Your task to perform on an android device: uninstall "Cash App" Image 0: 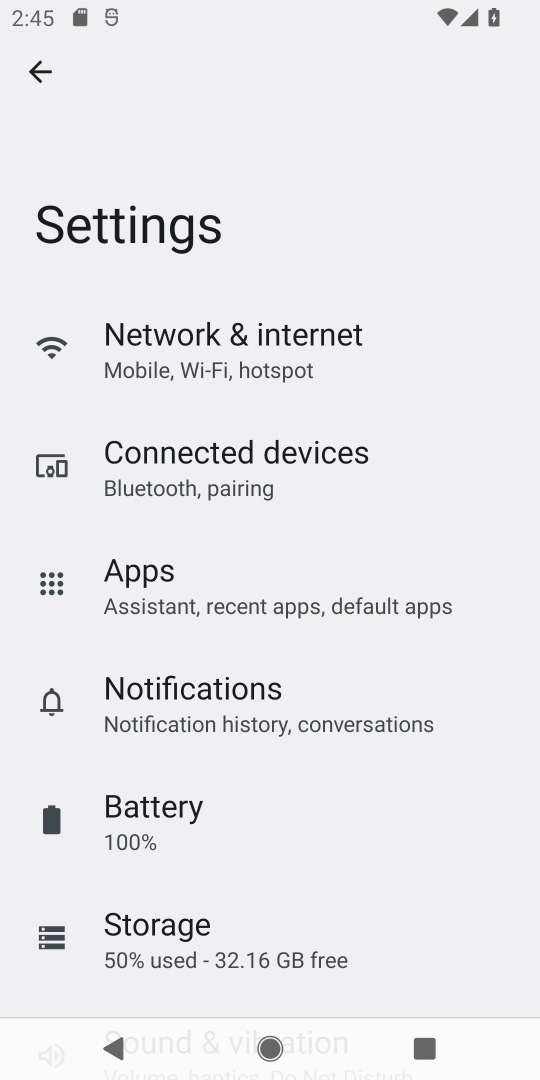
Step 0: press home button
Your task to perform on an android device: uninstall "Cash App" Image 1: 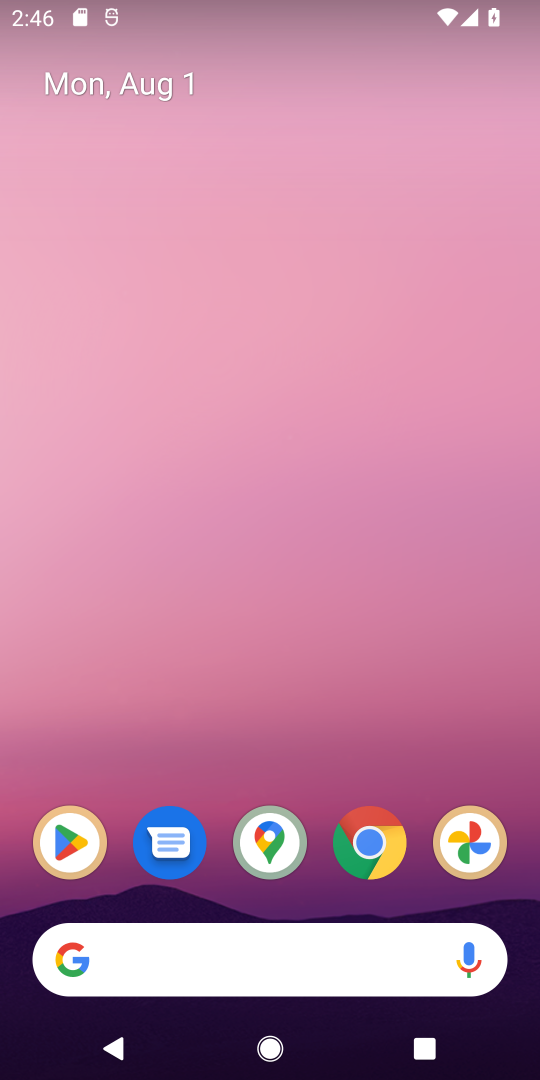
Step 1: click (64, 855)
Your task to perform on an android device: uninstall "Cash App" Image 2: 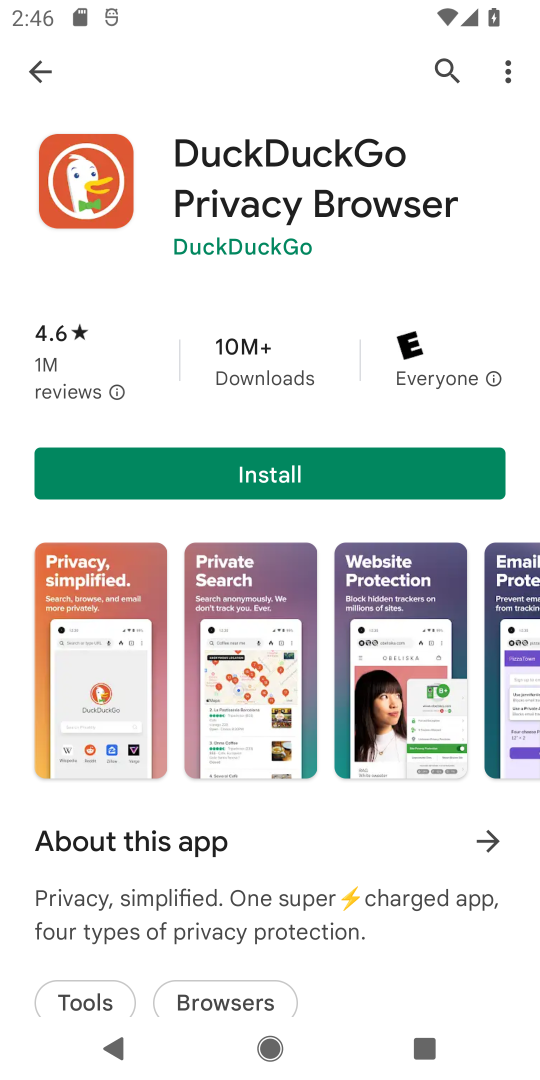
Step 2: click (40, 73)
Your task to perform on an android device: uninstall "Cash App" Image 3: 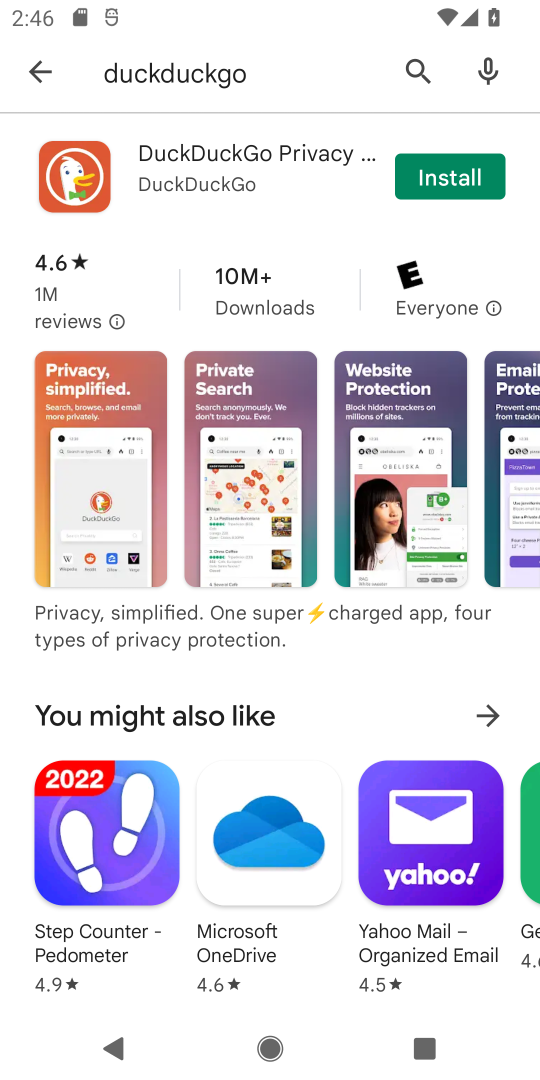
Step 3: click (189, 74)
Your task to perform on an android device: uninstall "Cash App" Image 4: 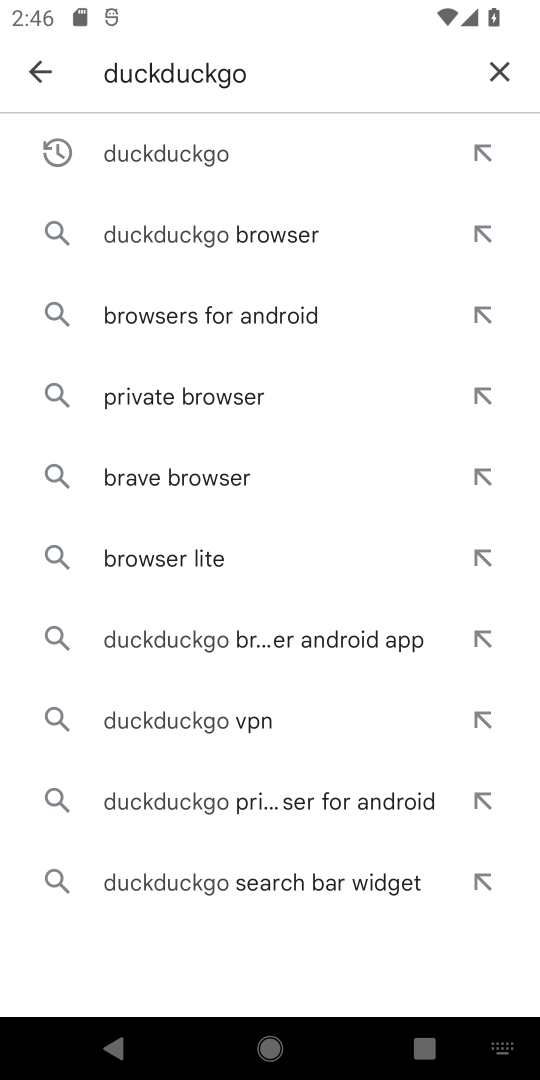
Step 4: click (492, 61)
Your task to perform on an android device: uninstall "Cash App" Image 5: 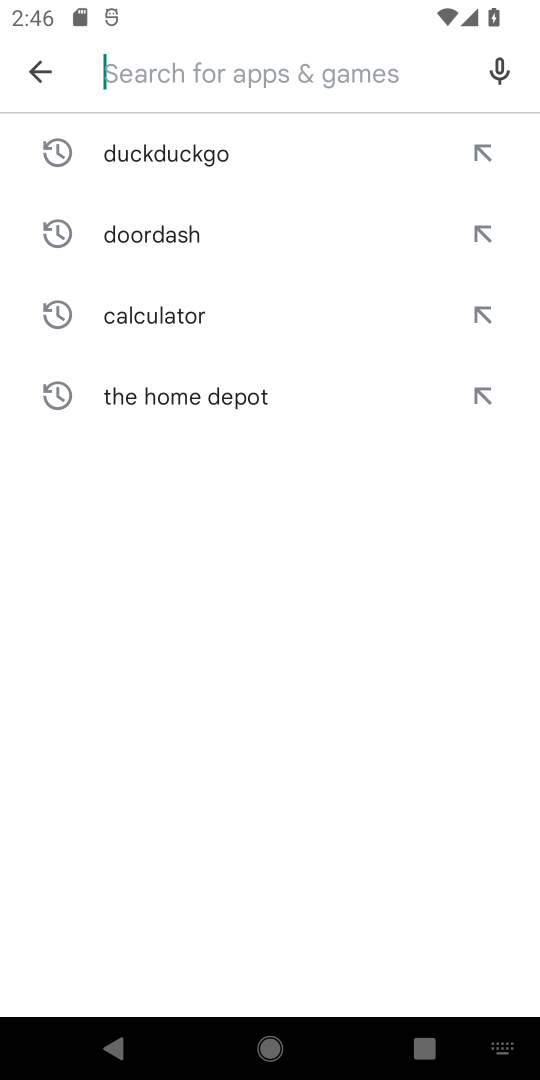
Step 5: type "CashApp"
Your task to perform on an android device: uninstall "Cash App" Image 6: 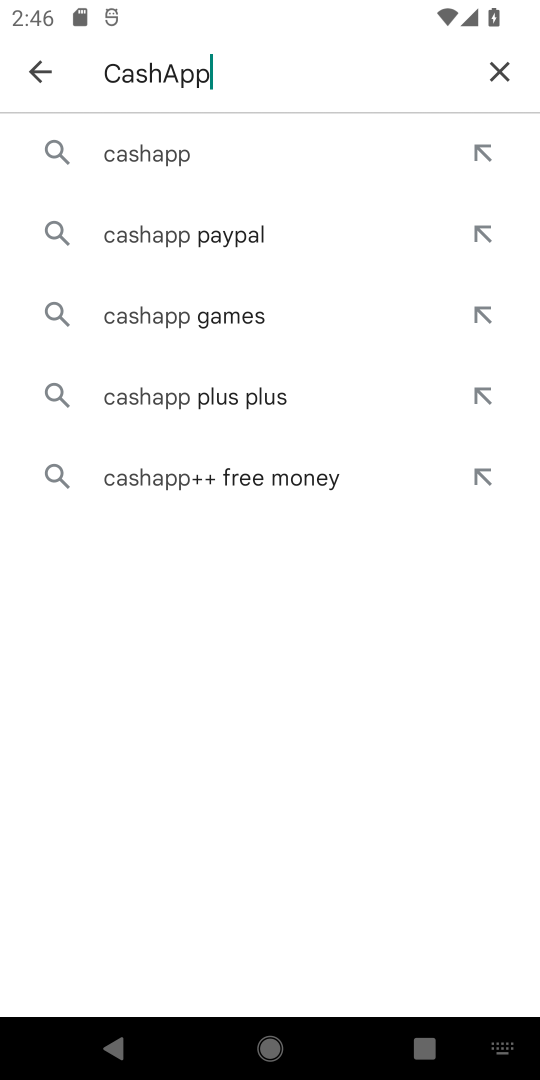
Step 6: click (196, 163)
Your task to perform on an android device: uninstall "Cash App" Image 7: 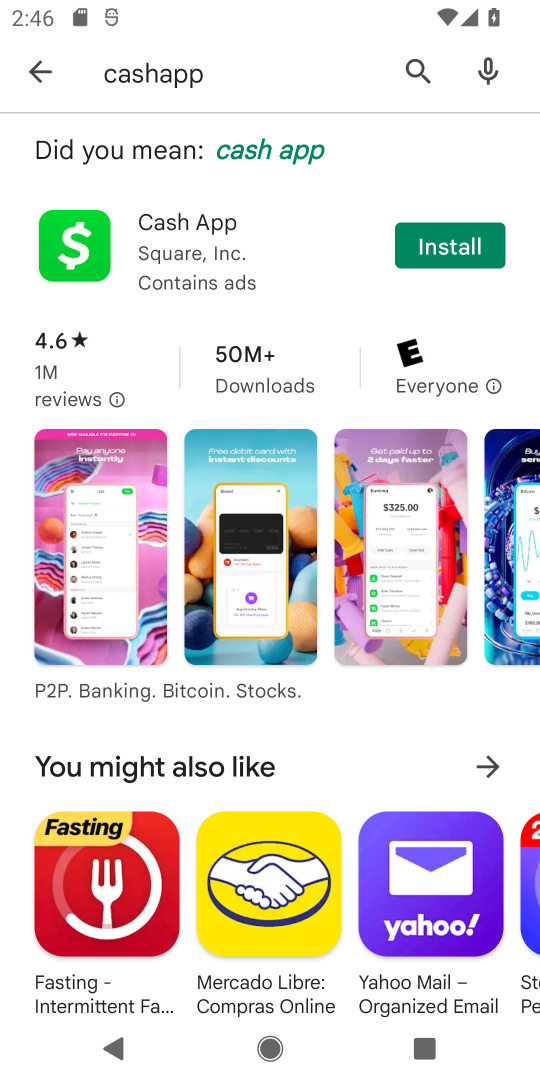
Step 7: click (79, 257)
Your task to perform on an android device: uninstall "Cash App" Image 8: 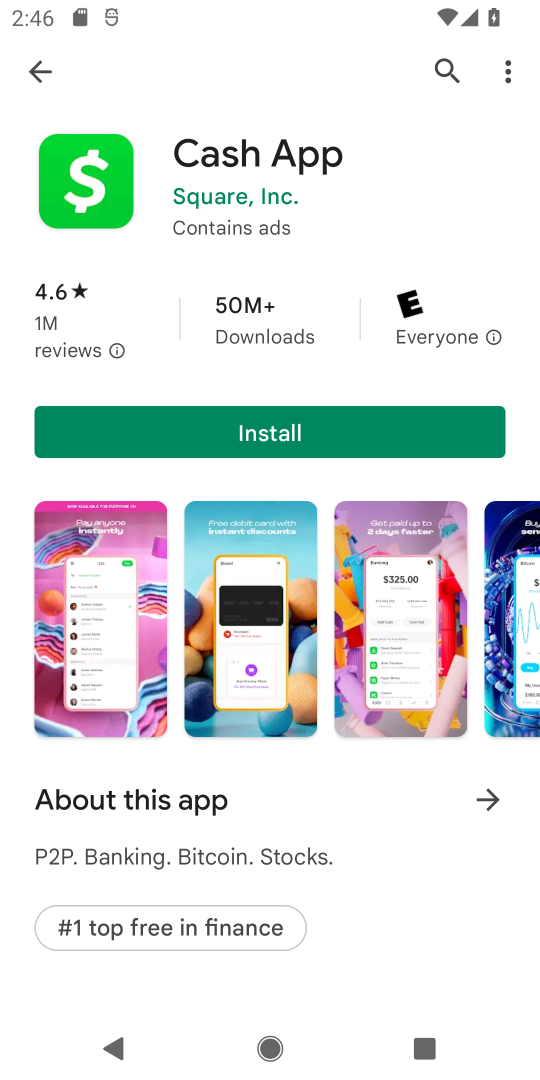
Step 8: task complete